Your task to perform on an android device: open chrome privacy settings Image 0: 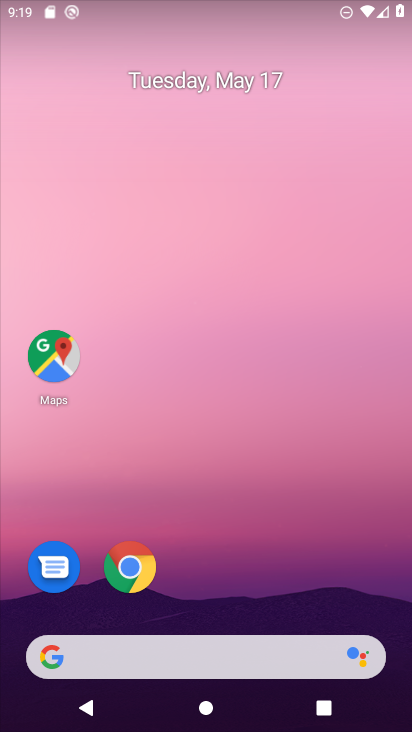
Step 0: click (120, 578)
Your task to perform on an android device: open chrome privacy settings Image 1: 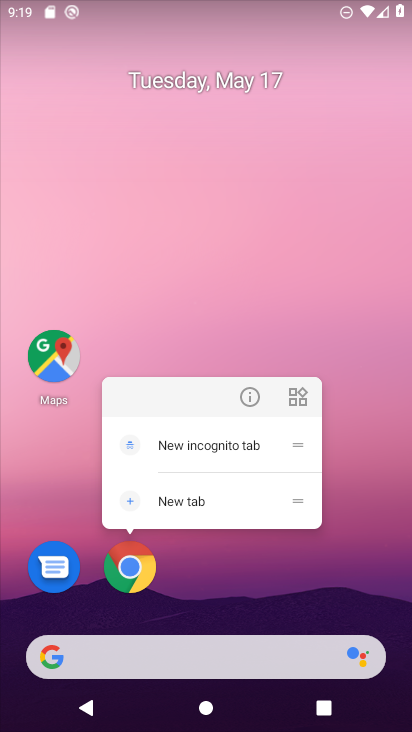
Step 1: click (133, 571)
Your task to perform on an android device: open chrome privacy settings Image 2: 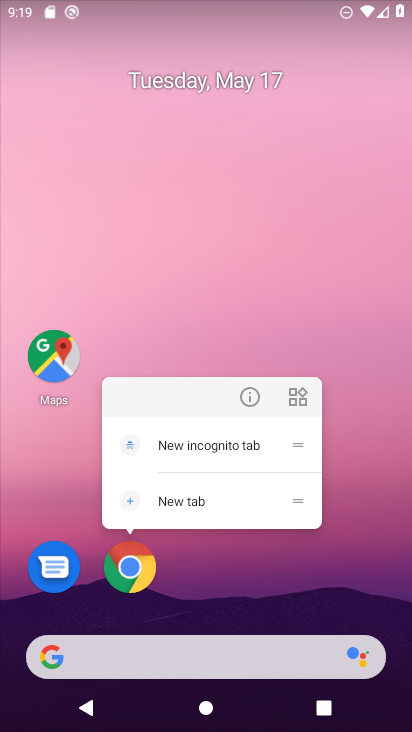
Step 2: click (134, 570)
Your task to perform on an android device: open chrome privacy settings Image 3: 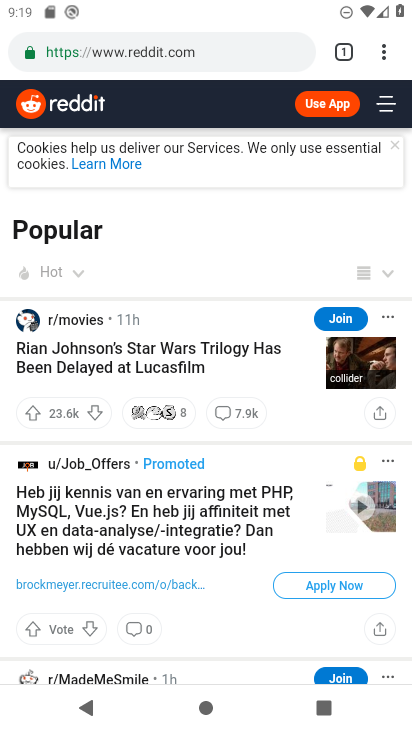
Step 3: drag from (392, 54) to (247, 610)
Your task to perform on an android device: open chrome privacy settings Image 4: 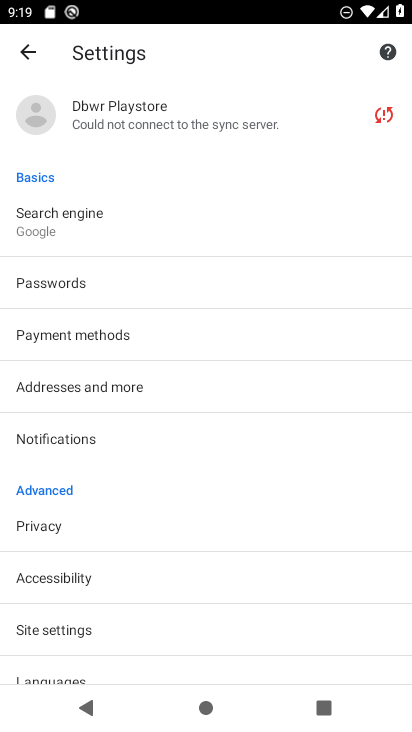
Step 4: click (102, 542)
Your task to perform on an android device: open chrome privacy settings Image 5: 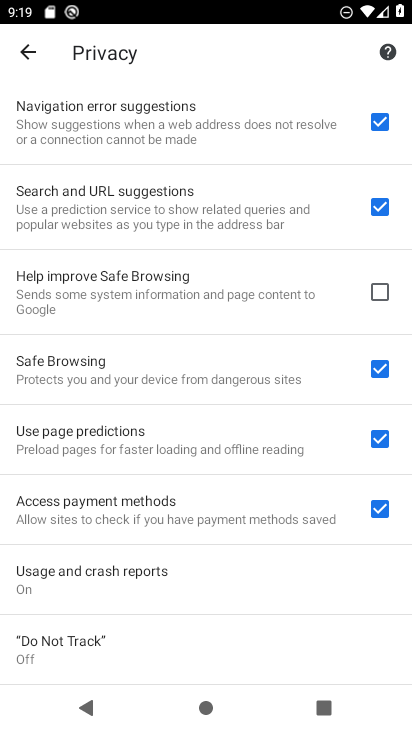
Step 5: task complete